Your task to perform on an android device: turn on sleep mode Image 0: 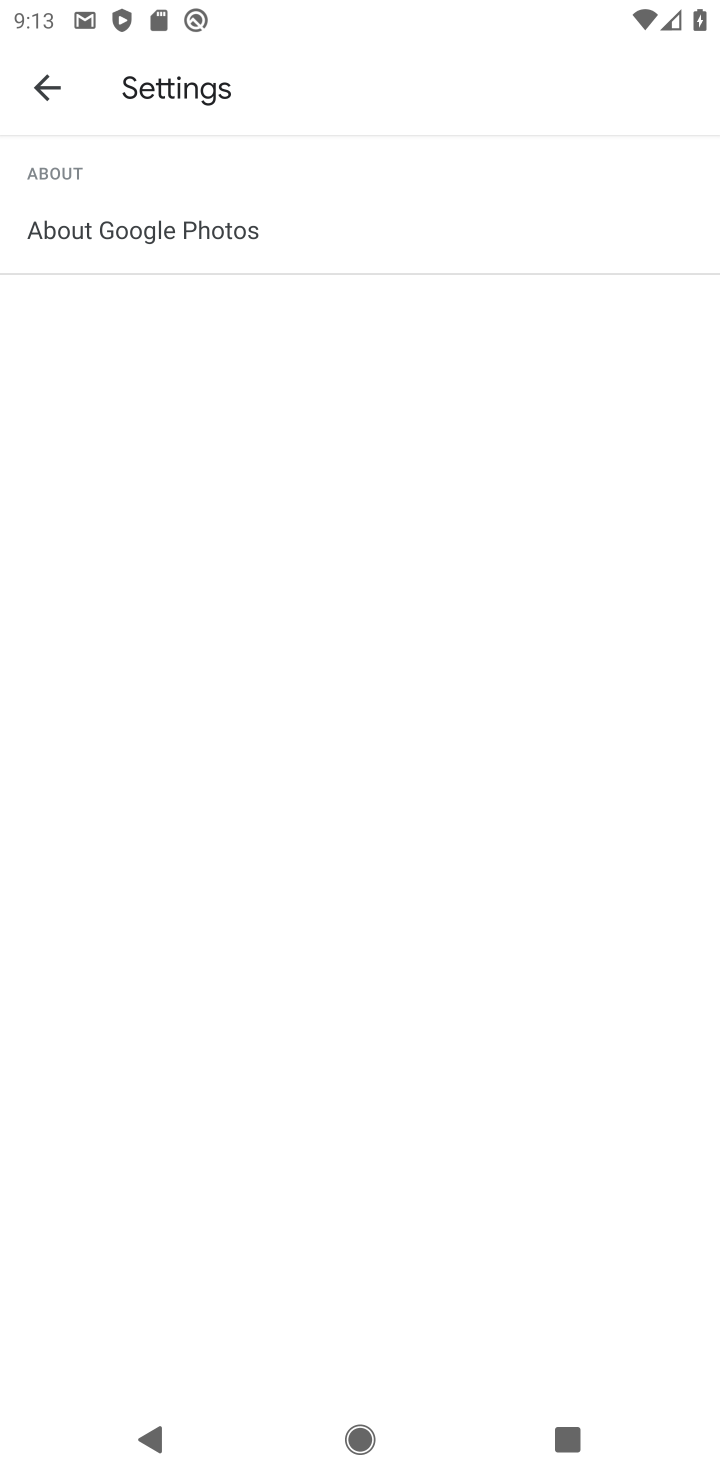
Step 0: click (50, 63)
Your task to perform on an android device: turn on sleep mode Image 1: 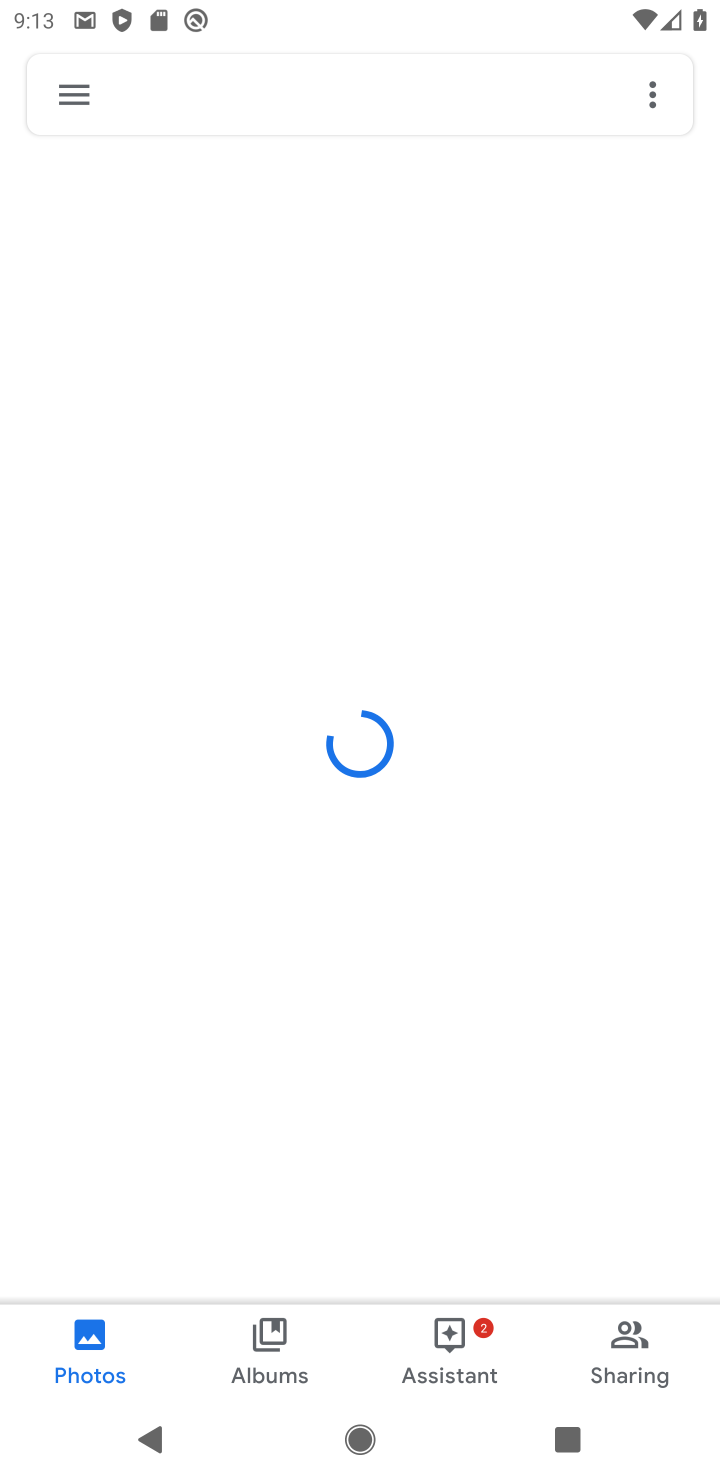
Step 1: press home button
Your task to perform on an android device: turn on sleep mode Image 2: 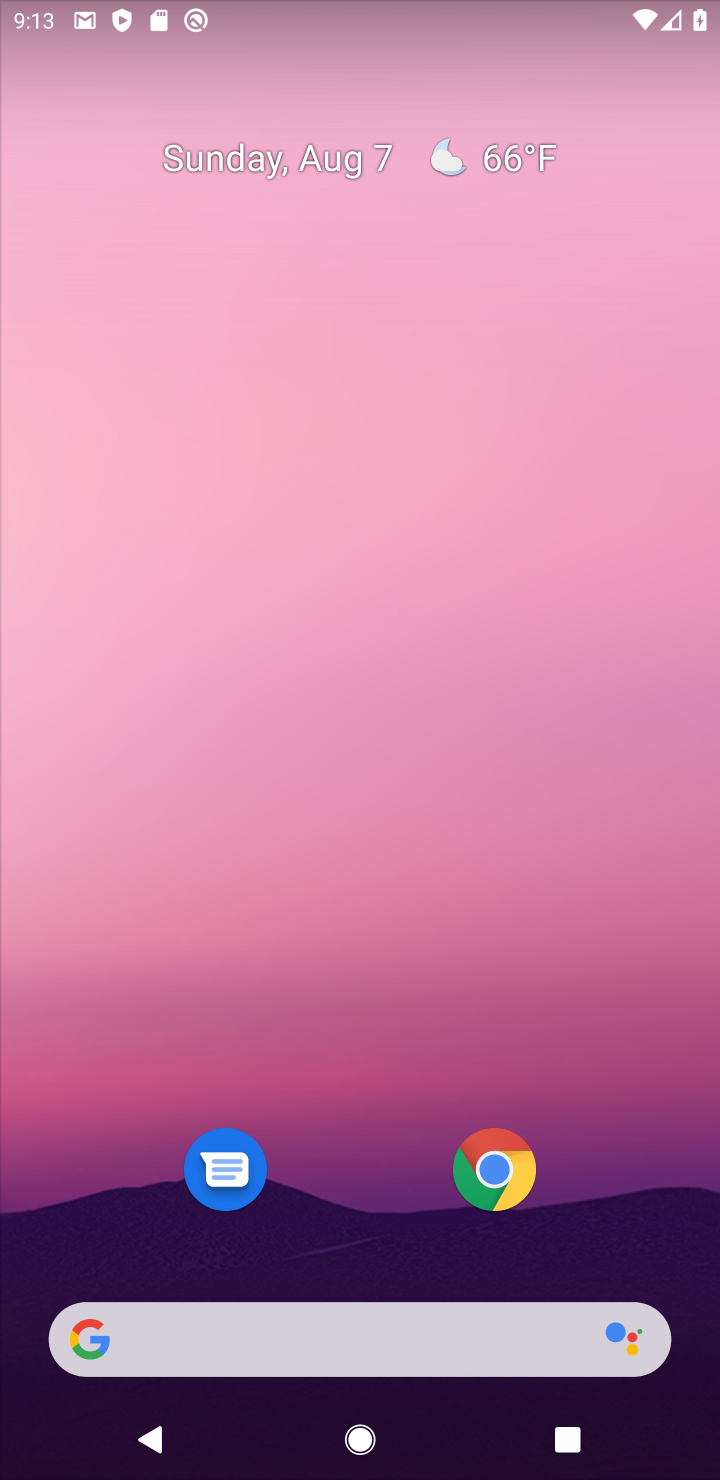
Step 2: drag from (430, 1090) to (534, 104)
Your task to perform on an android device: turn on sleep mode Image 3: 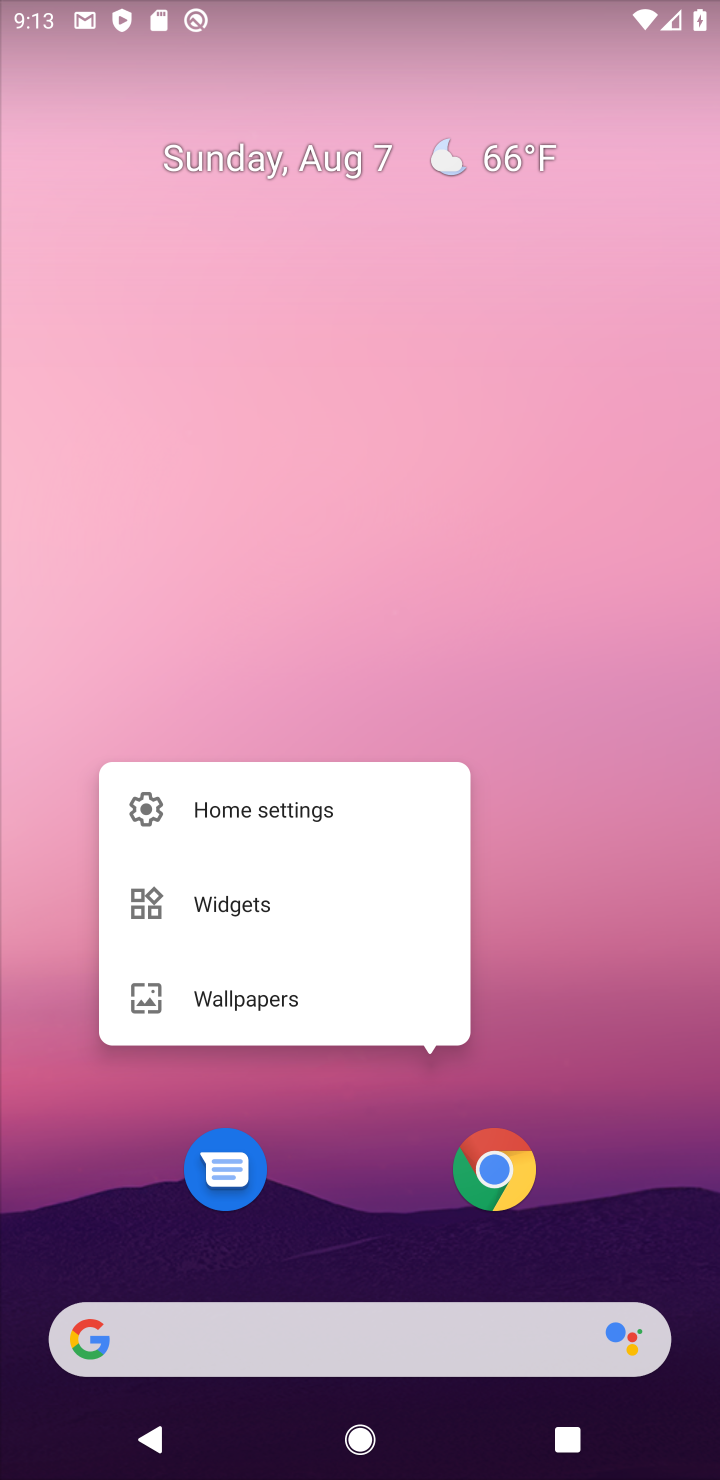
Step 3: click (330, 1152)
Your task to perform on an android device: turn on sleep mode Image 4: 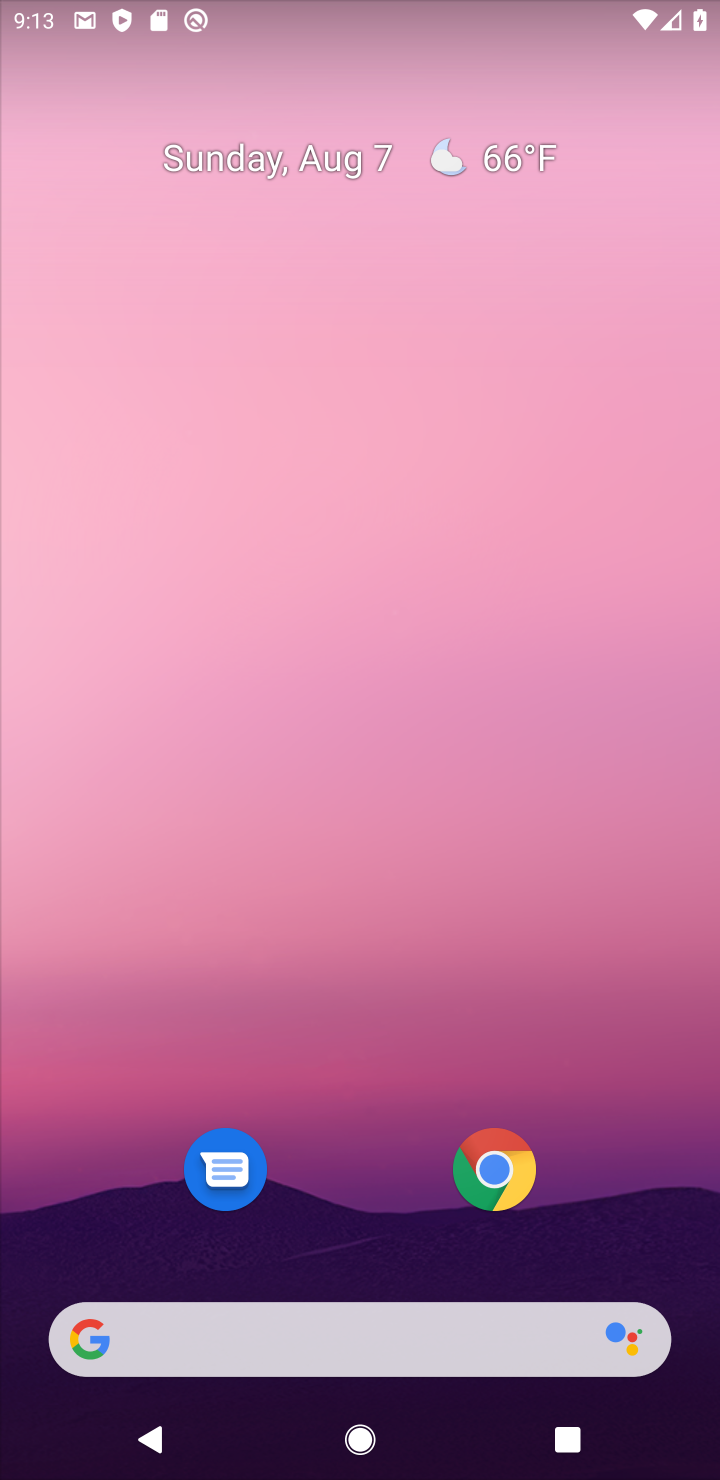
Step 4: drag from (437, 1260) to (703, 923)
Your task to perform on an android device: turn on sleep mode Image 5: 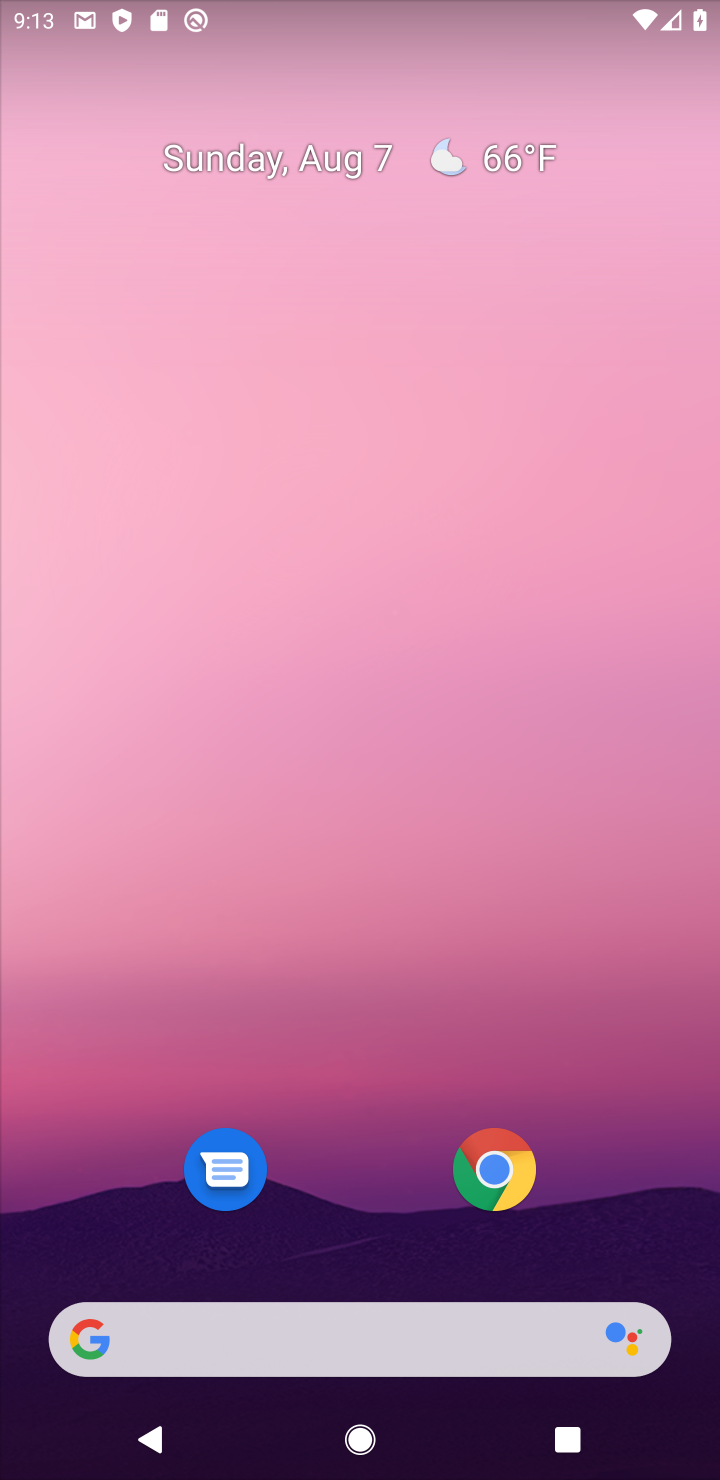
Step 5: drag from (516, 1270) to (537, 50)
Your task to perform on an android device: turn on sleep mode Image 6: 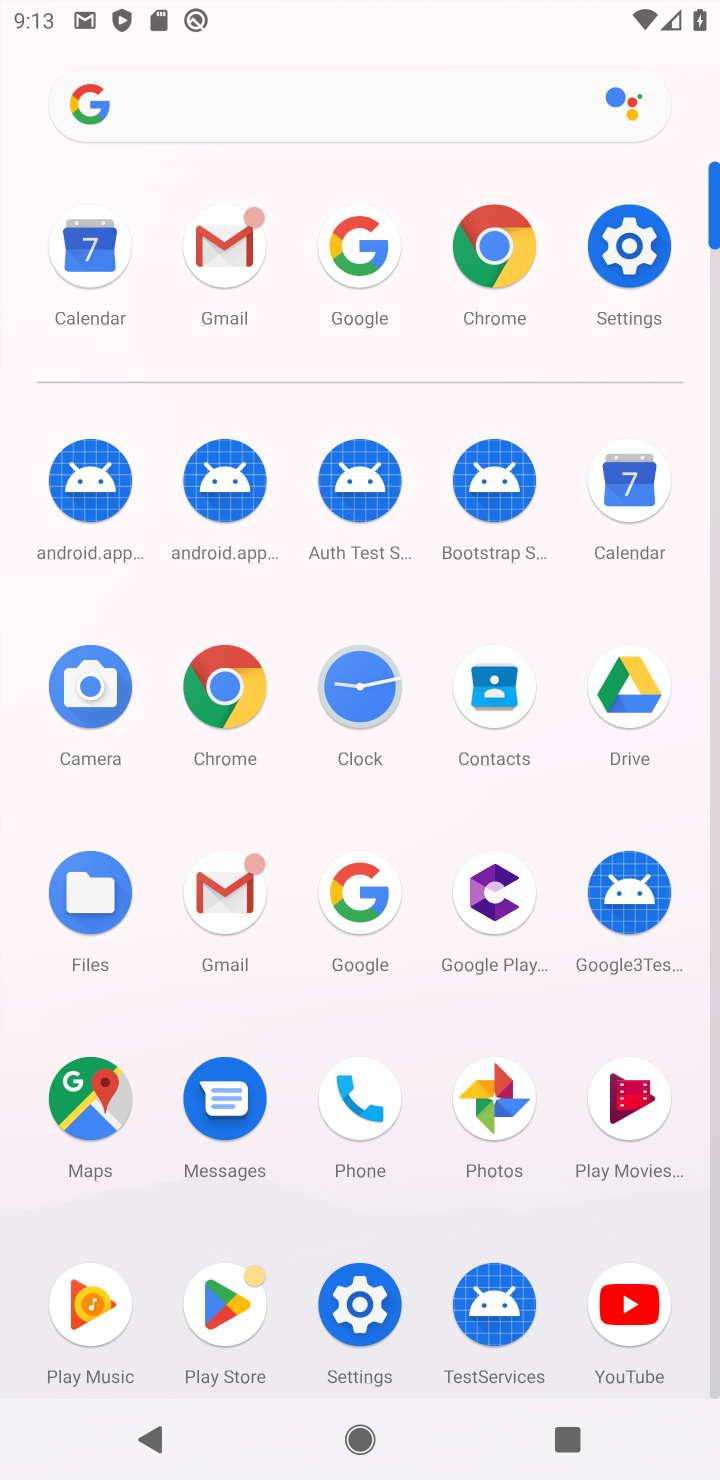
Step 6: click (623, 237)
Your task to perform on an android device: turn on sleep mode Image 7: 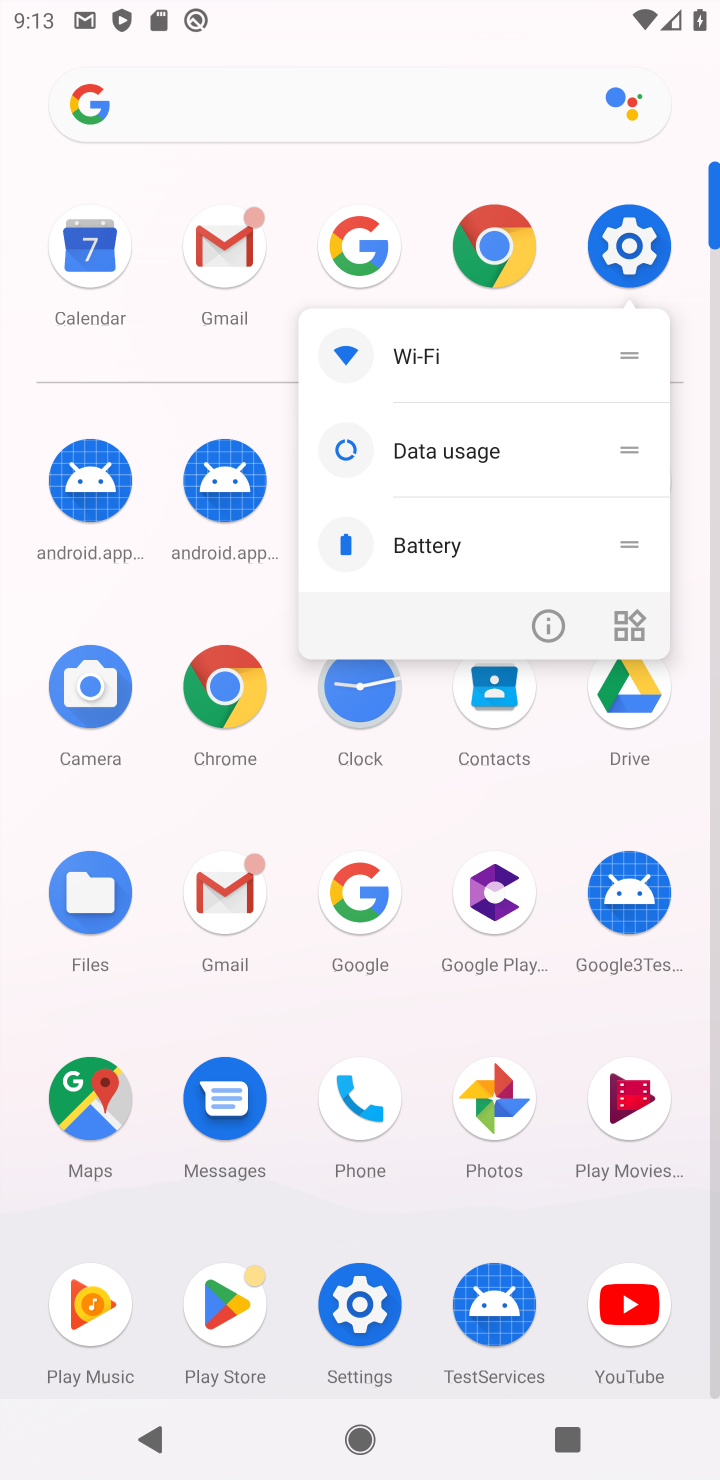
Step 7: click (624, 255)
Your task to perform on an android device: turn on sleep mode Image 8: 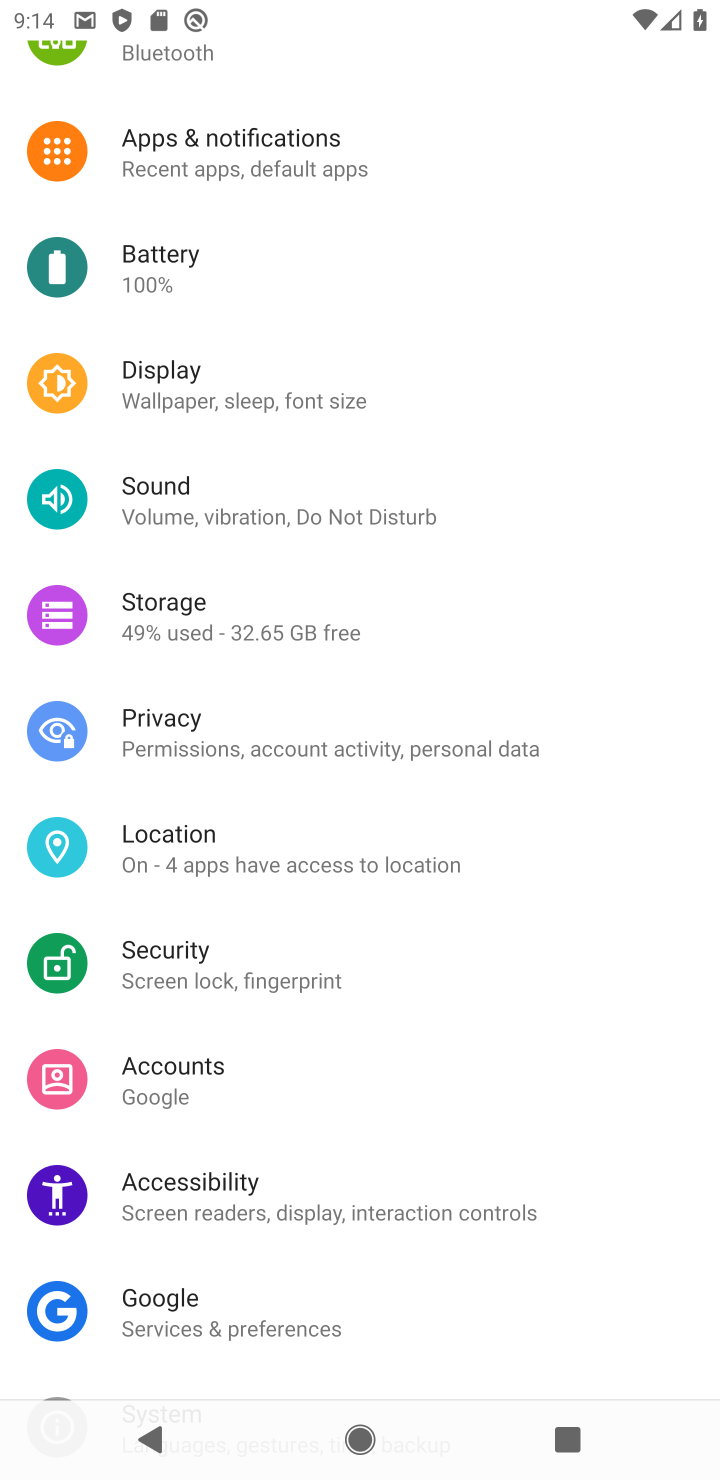
Step 8: click (339, 417)
Your task to perform on an android device: turn on sleep mode Image 9: 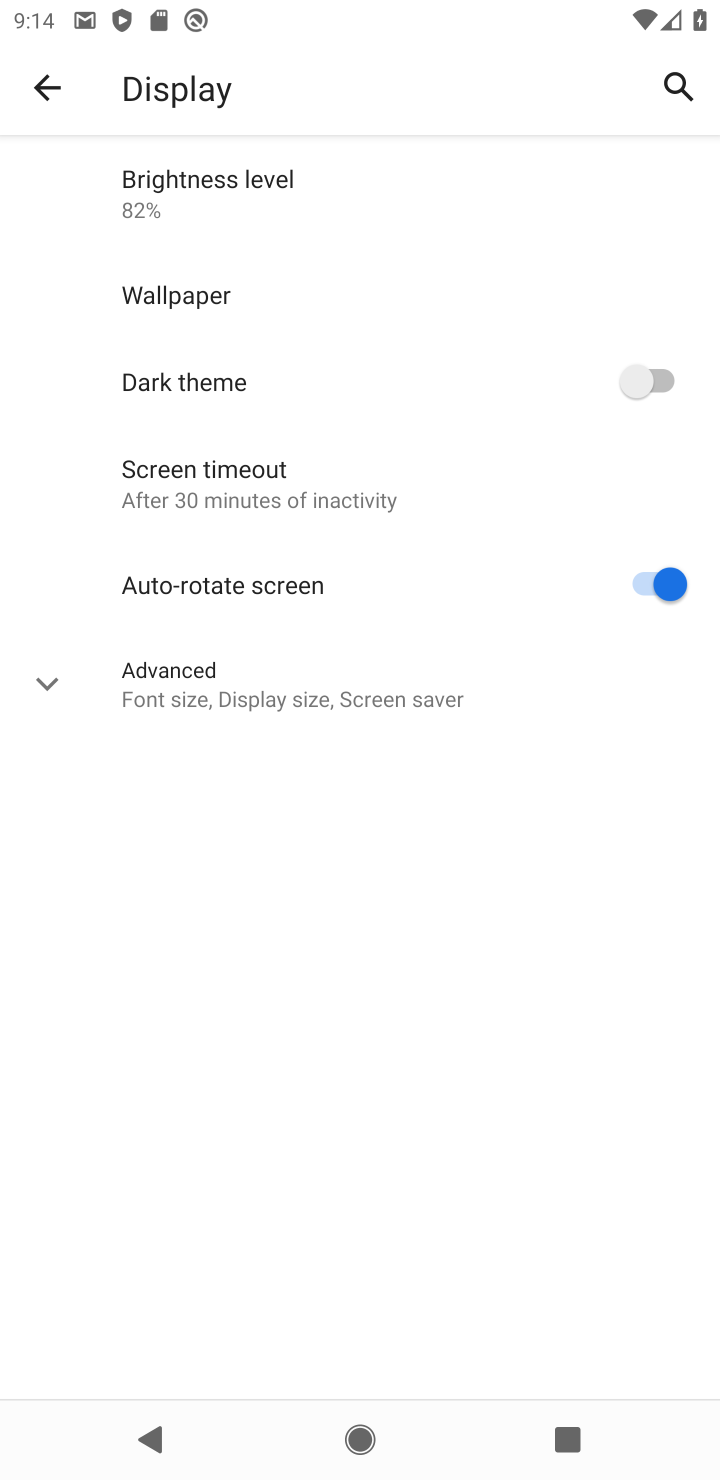
Step 9: task complete